Your task to perform on an android device: see creations saved in the google photos Image 0: 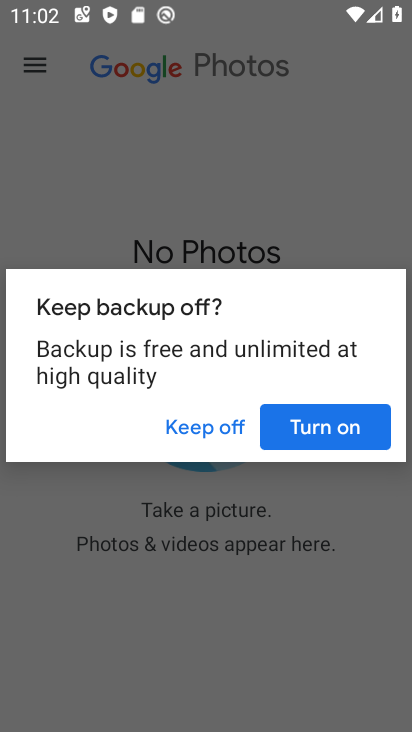
Step 0: press back button
Your task to perform on an android device: see creations saved in the google photos Image 1: 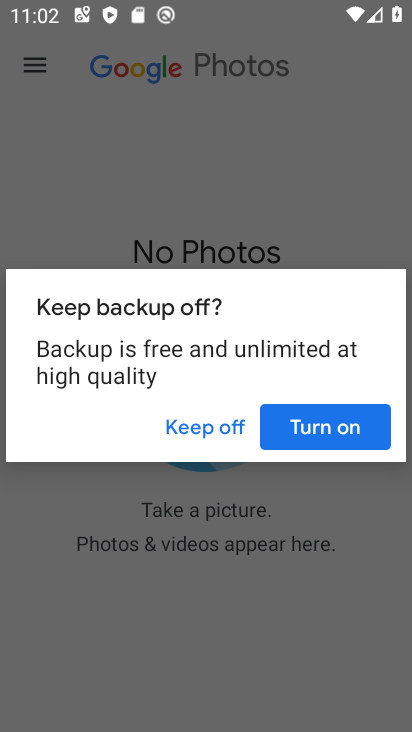
Step 1: click (355, 421)
Your task to perform on an android device: see creations saved in the google photos Image 2: 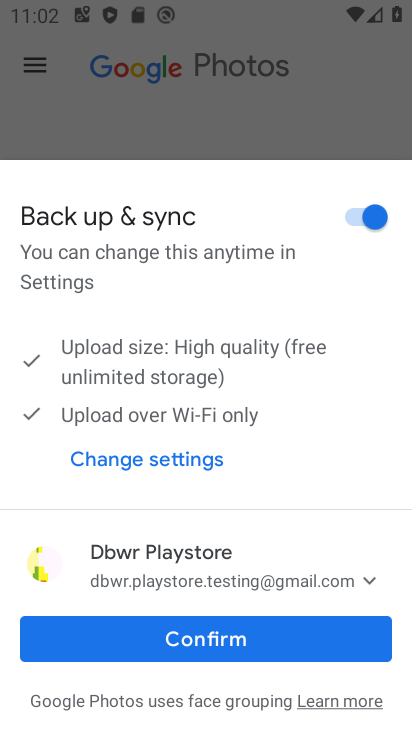
Step 2: click (154, 637)
Your task to perform on an android device: see creations saved in the google photos Image 3: 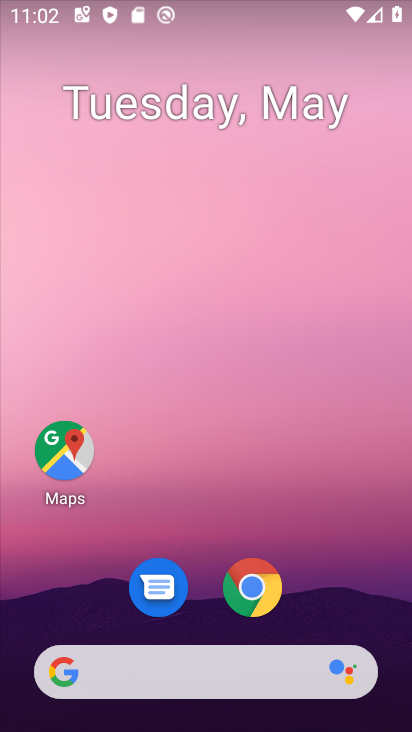
Step 3: drag from (317, 589) to (277, 39)
Your task to perform on an android device: see creations saved in the google photos Image 4: 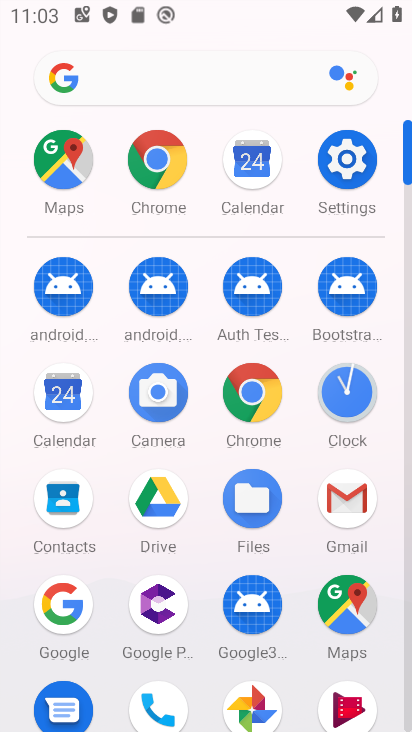
Step 4: drag from (18, 520) to (16, 252)
Your task to perform on an android device: see creations saved in the google photos Image 5: 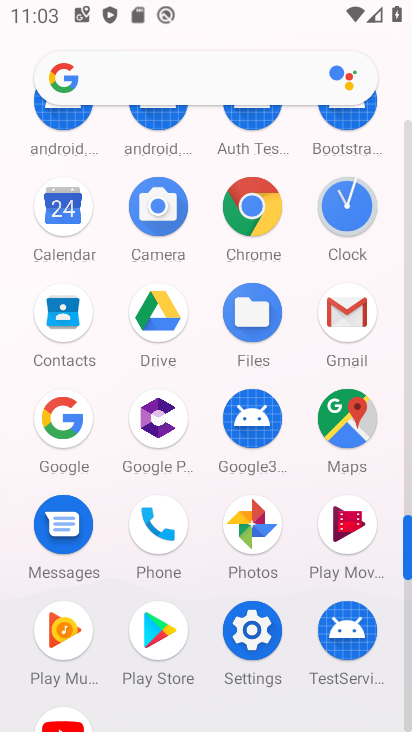
Step 5: click (250, 521)
Your task to perform on an android device: see creations saved in the google photos Image 6: 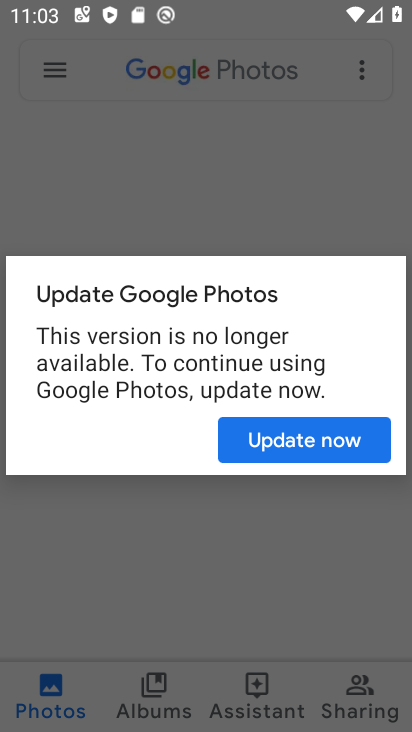
Step 6: click (297, 434)
Your task to perform on an android device: see creations saved in the google photos Image 7: 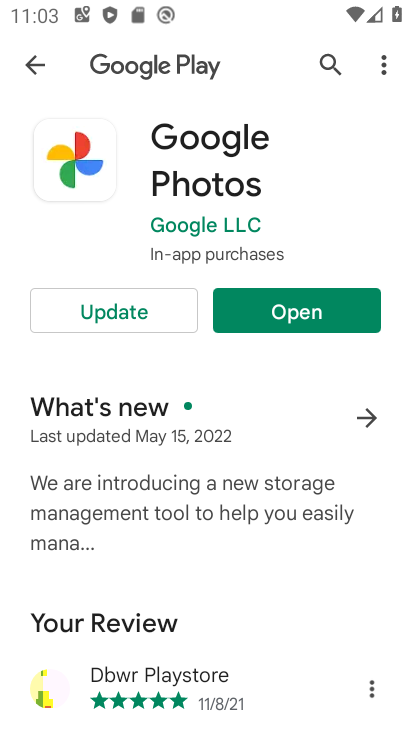
Step 7: click (138, 314)
Your task to perform on an android device: see creations saved in the google photos Image 8: 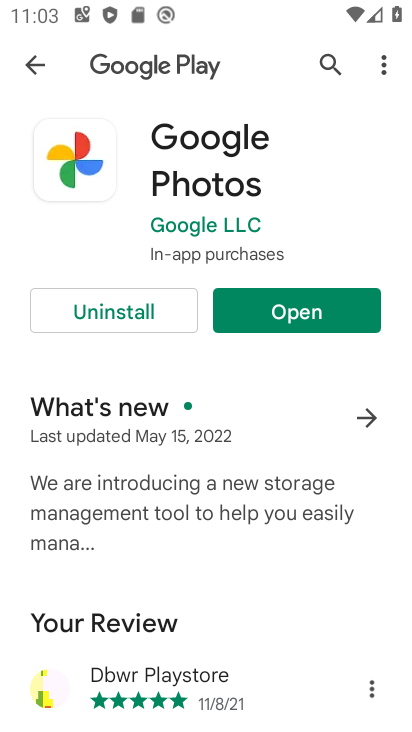
Step 8: click (264, 300)
Your task to perform on an android device: see creations saved in the google photos Image 9: 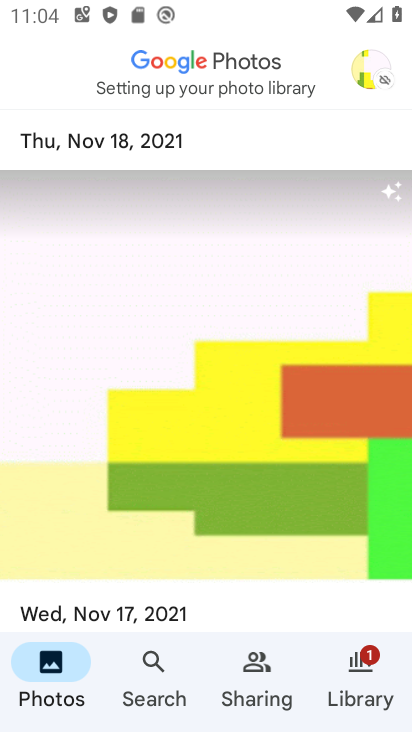
Step 9: task complete